Your task to perform on an android device: turn on sleep mode Image 0: 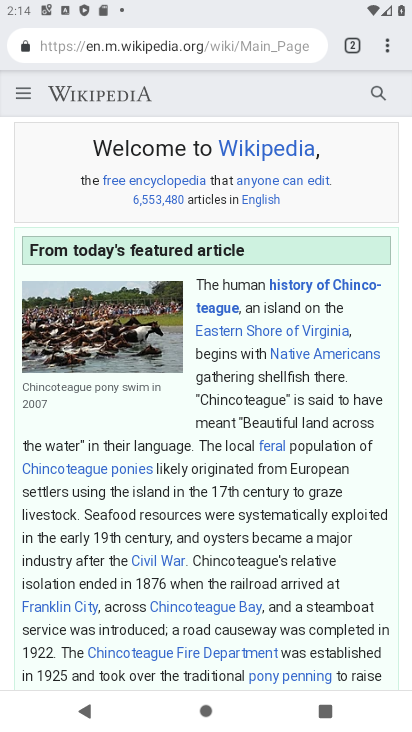
Step 0: press home button
Your task to perform on an android device: turn on sleep mode Image 1: 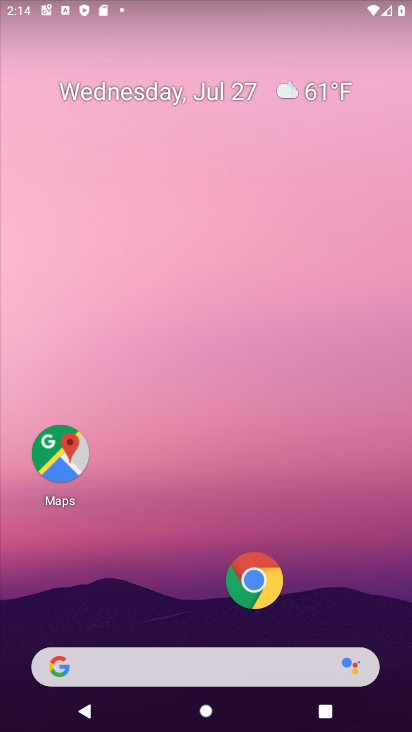
Step 1: drag from (219, 611) to (249, 117)
Your task to perform on an android device: turn on sleep mode Image 2: 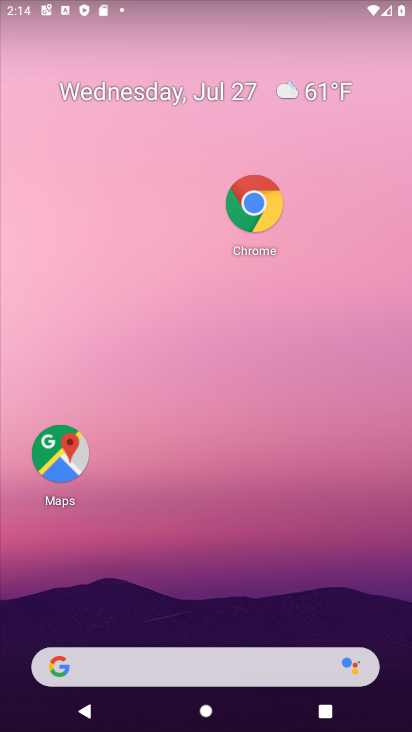
Step 2: drag from (193, 588) to (187, 209)
Your task to perform on an android device: turn on sleep mode Image 3: 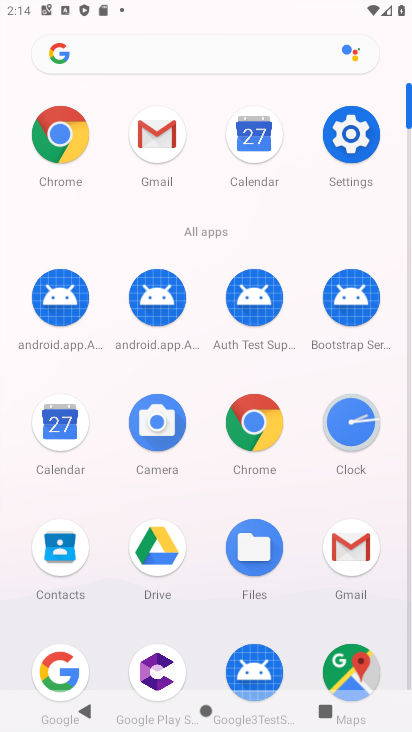
Step 3: click (345, 139)
Your task to perform on an android device: turn on sleep mode Image 4: 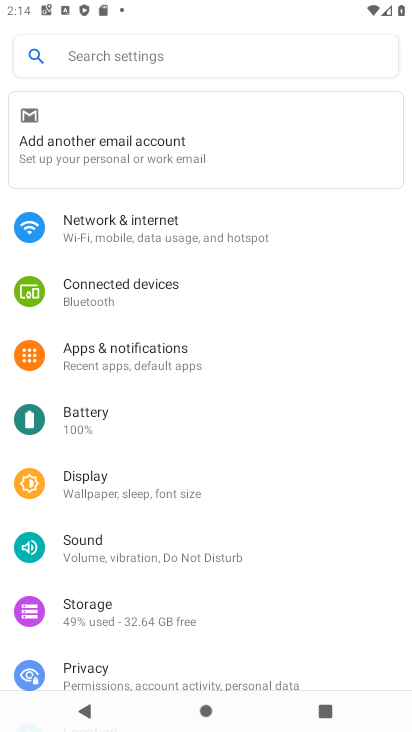
Step 4: click (111, 459)
Your task to perform on an android device: turn on sleep mode Image 5: 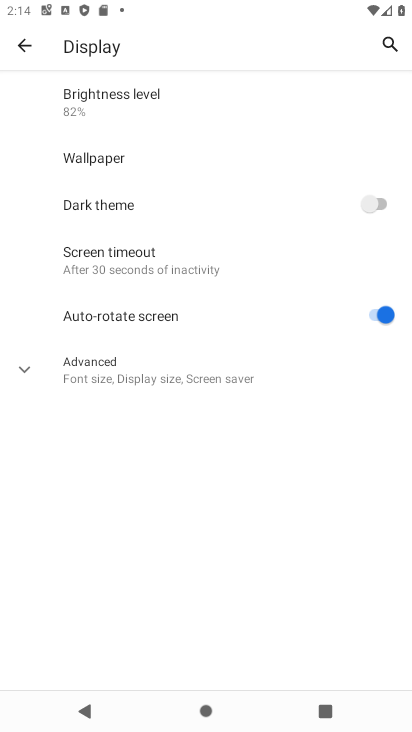
Step 5: click (146, 272)
Your task to perform on an android device: turn on sleep mode Image 6: 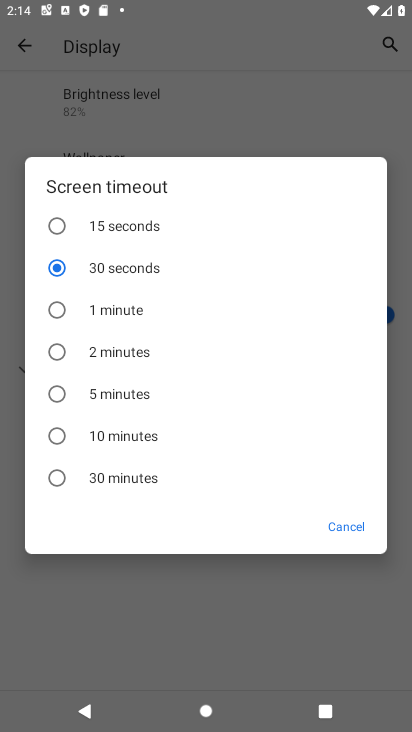
Step 6: click (127, 442)
Your task to perform on an android device: turn on sleep mode Image 7: 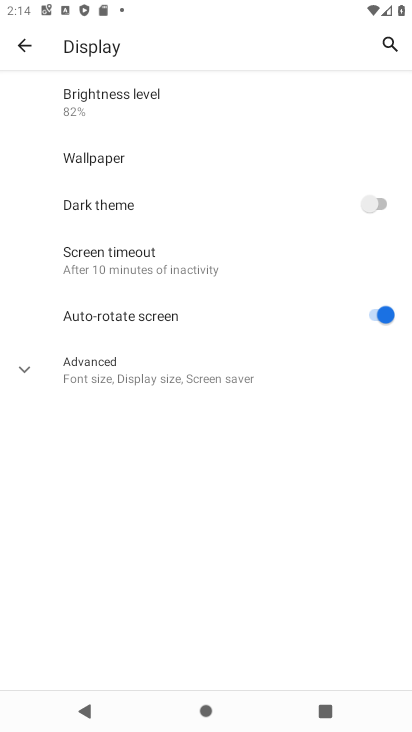
Step 7: task complete